Your task to perform on an android device: check google app version Image 0: 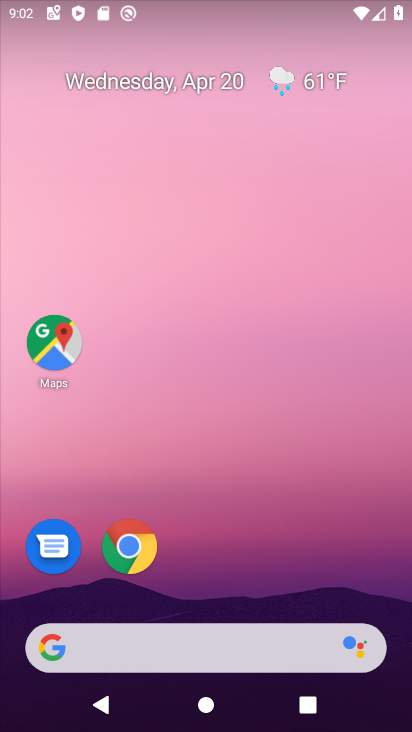
Step 0: drag from (206, 727) to (194, 95)
Your task to perform on an android device: check google app version Image 1: 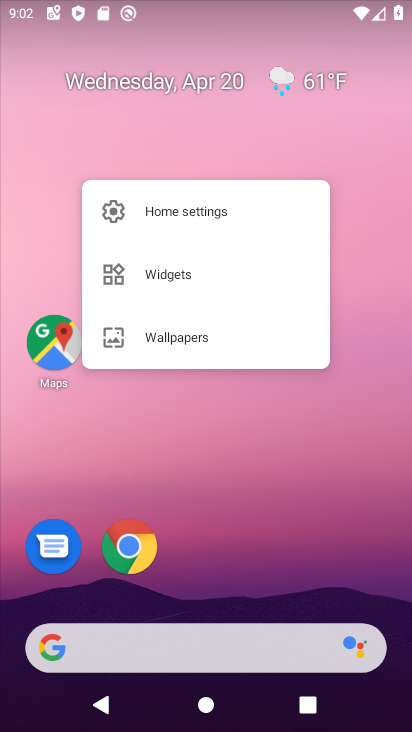
Step 1: click (298, 500)
Your task to perform on an android device: check google app version Image 2: 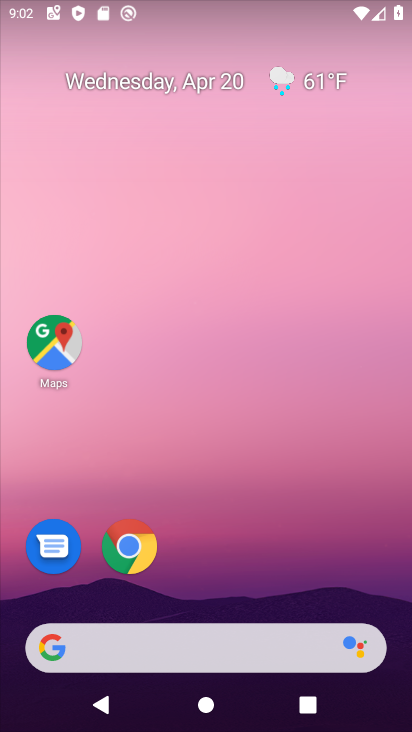
Step 2: drag from (224, 630) to (237, 139)
Your task to perform on an android device: check google app version Image 3: 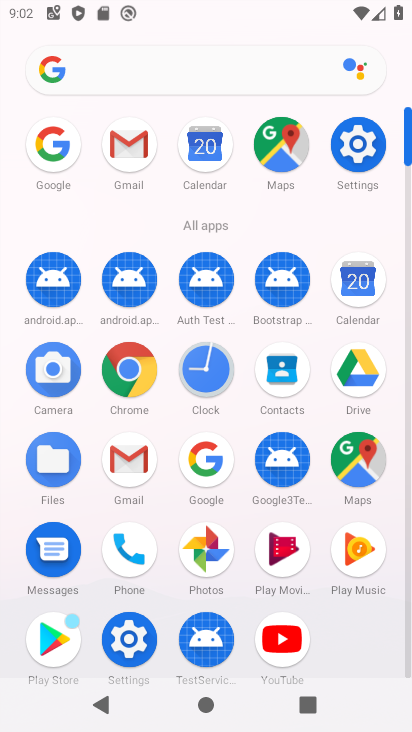
Step 3: click (207, 463)
Your task to perform on an android device: check google app version Image 4: 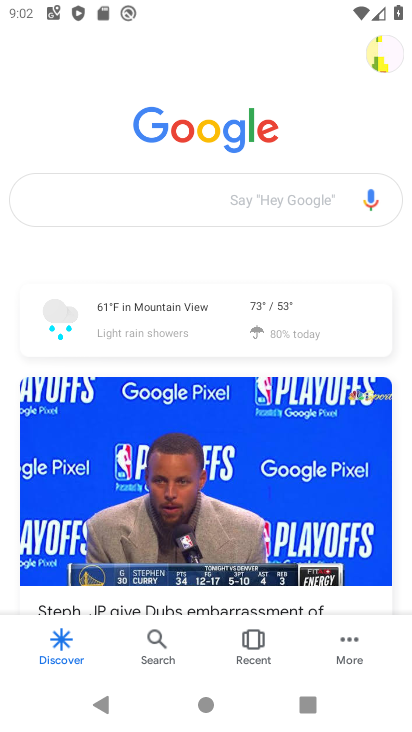
Step 4: click (344, 639)
Your task to perform on an android device: check google app version Image 5: 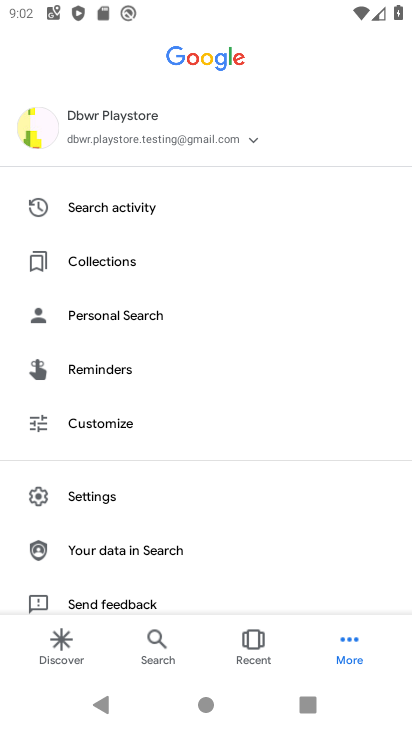
Step 5: click (95, 494)
Your task to perform on an android device: check google app version Image 6: 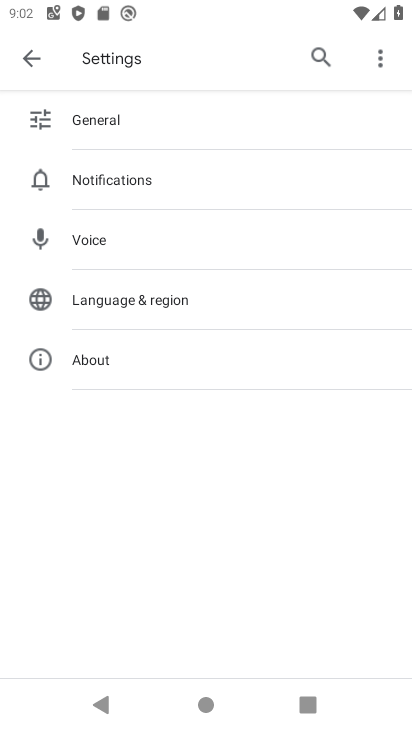
Step 6: click (89, 361)
Your task to perform on an android device: check google app version Image 7: 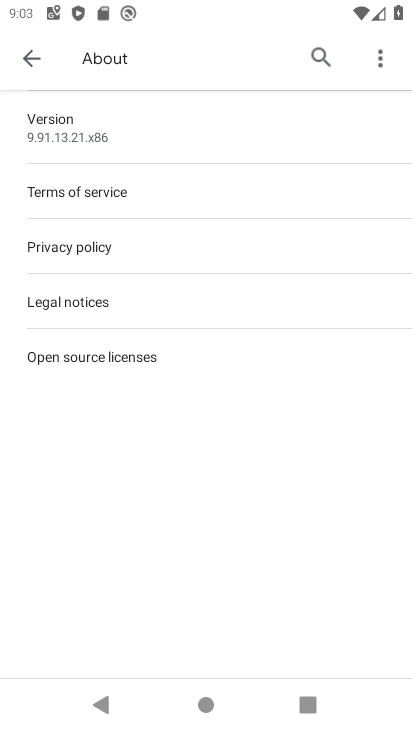
Step 7: task complete